Your task to perform on an android device: turn on improve location accuracy Image 0: 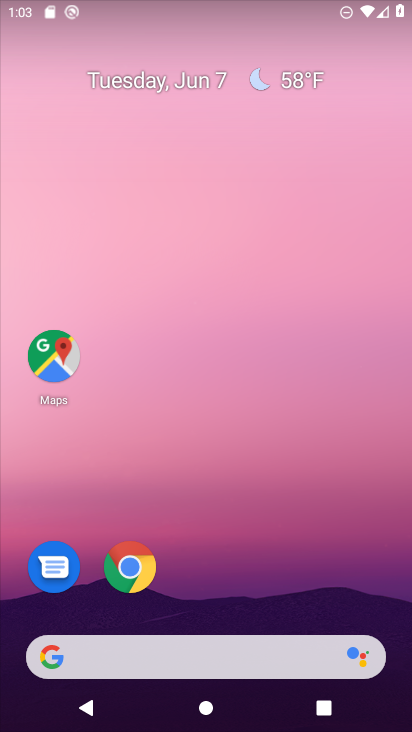
Step 0: drag from (398, 710) to (323, 165)
Your task to perform on an android device: turn on improve location accuracy Image 1: 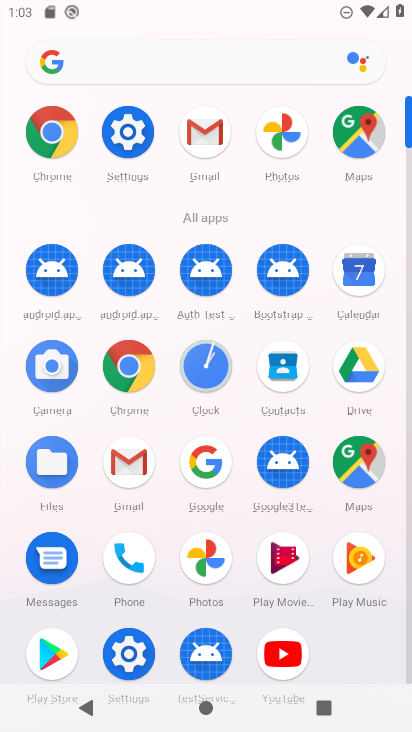
Step 1: click (128, 655)
Your task to perform on an android device: turn on improve location accuracy Image 2: 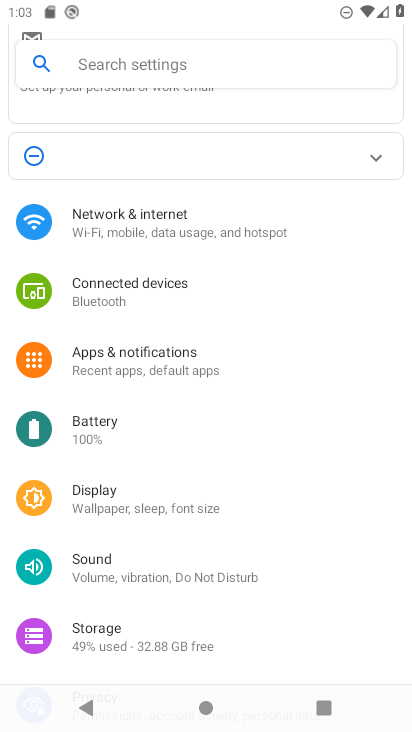
Step 2: drag from (146, 648) to (135, 258)
Your task to perform on an android device: turn on improve location accuracy Image 3: 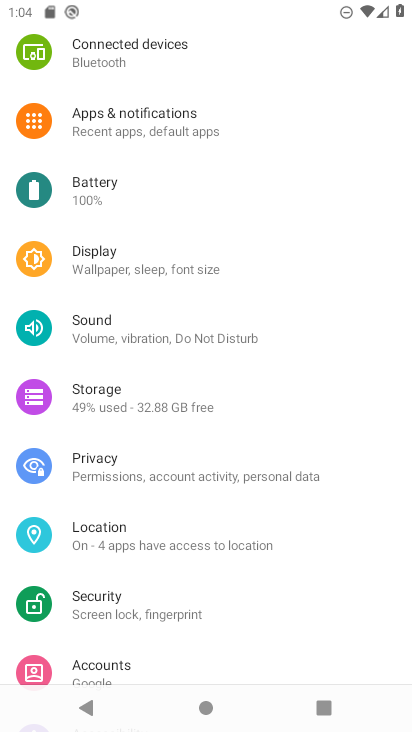
Step 3: click (85, 541)
Your task to perform on an android device: turn on improve location accuracy Image 4: 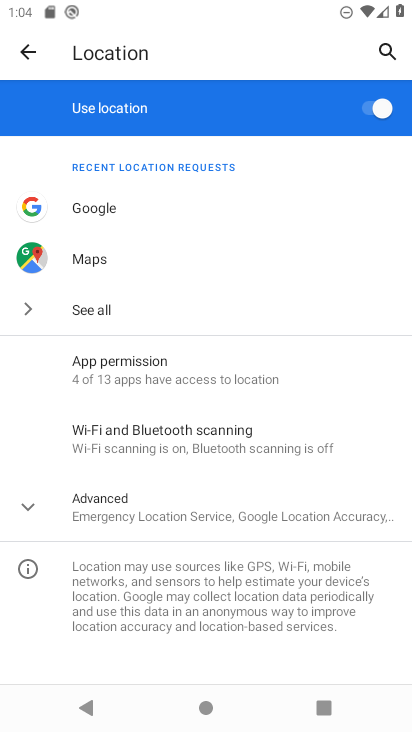
Step 4: click (89, 507)
Your task to perform on an android device: turn on improve location accuracy Image 5: 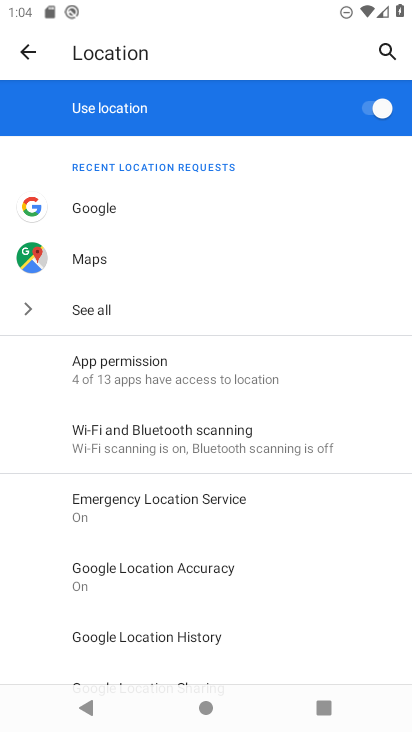
Step 5: click (176, 568)
Your task to perform on an android device: turn on improve location accuracy Image 6: 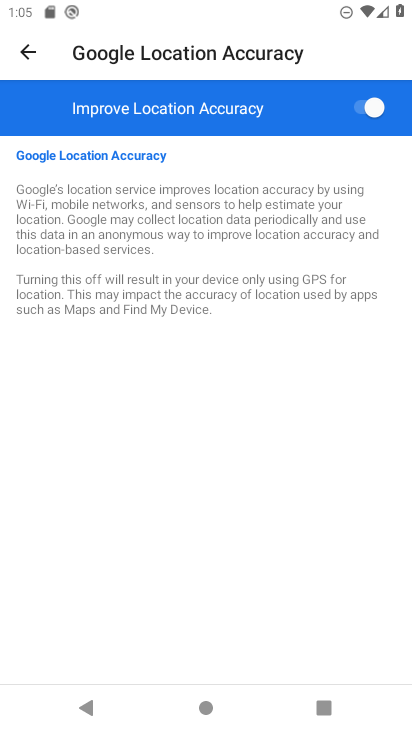
Step 6: task complete